Your task to perform on an android device: Open internet settings Image 0: 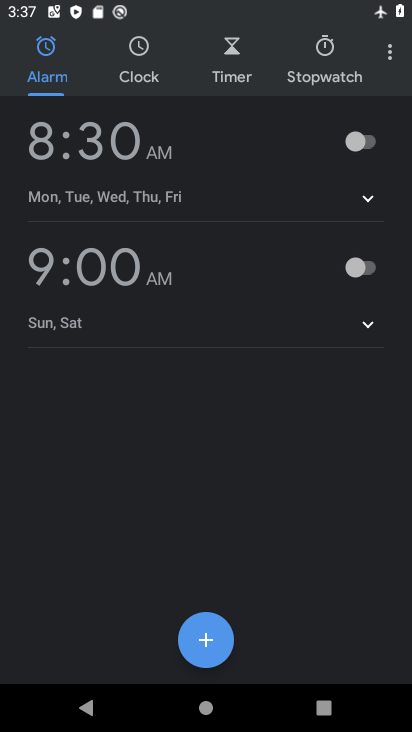
Step 0: press home button
Your task to perform on an android device: Open internet settings Image 1: 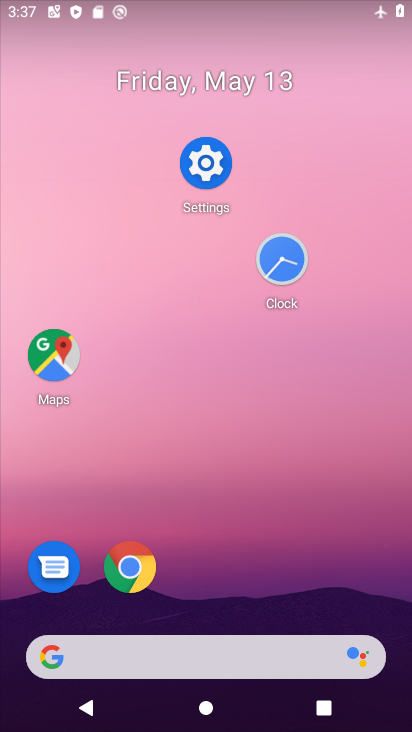
Step 1: click (200, 186)
Your task to perform on an android device: Open internet settings Image 2: 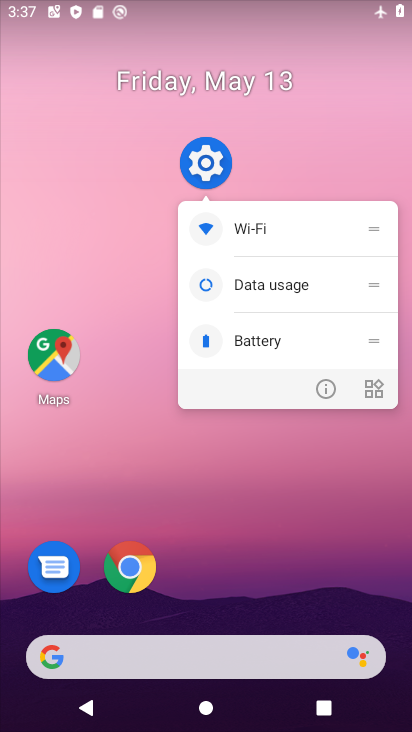
Step 2: click (223, 184)
Your task to perform on an android device: Open internet settings Image 3: 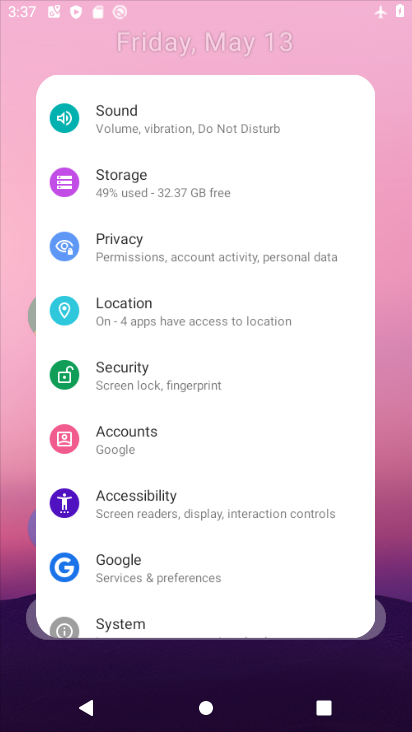
Step 3: click (216, 179)
Your task to perform on an android device: Open internet settings Image 4: 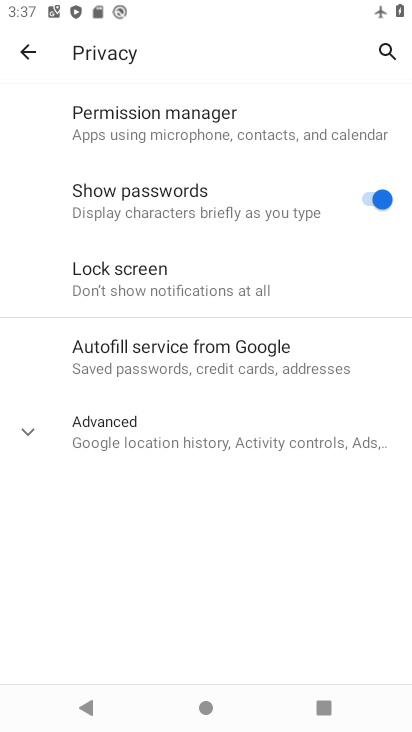
Step 4: click (12, 55)
Your task to perform on an android device: Open internet settings Image 5: 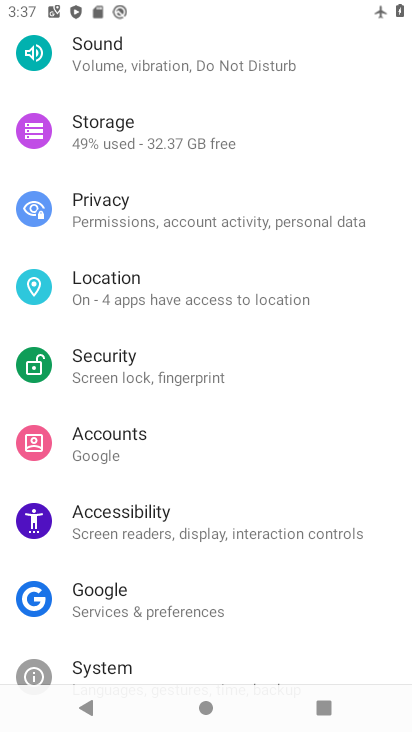
Step 5: drag from (168, 186) to (171, 512)
Your task to perform on an android device: Open internet settings Image 6: 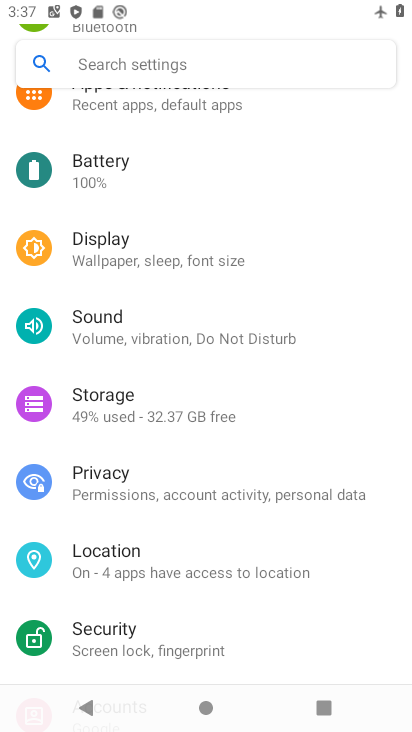
Step 6: drag from (192, 177) to (190, 443)
Your task to perform on an android device: Open internet settings Image 7: 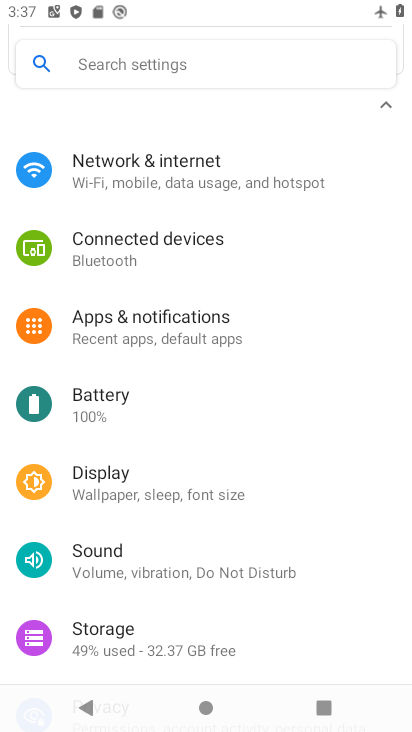
Step 7: click (183, 202)
Your task to perform on an android device: Open internet settings Image 8: 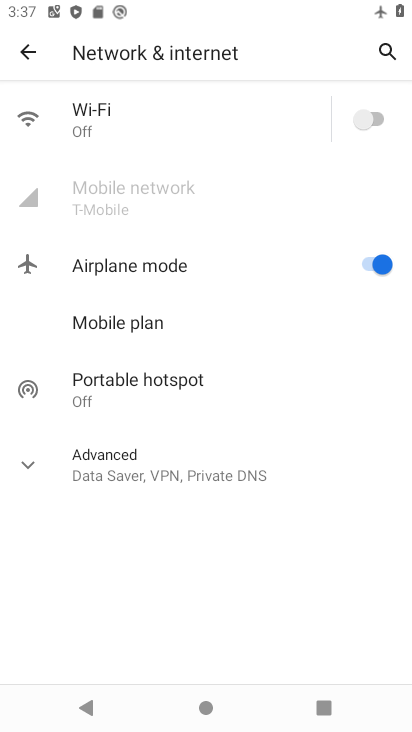
Step 8: task complete